Your task to perform on an android device: open wifi settings Image 0: 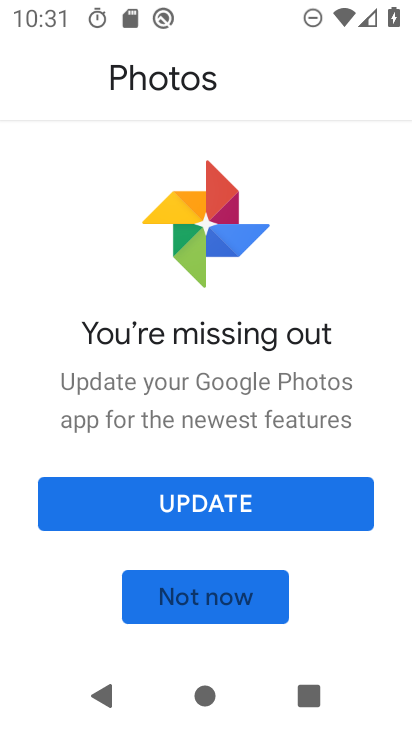
Step 0: press home button
Your task to perform on an android device: open wifi settings Image 1: 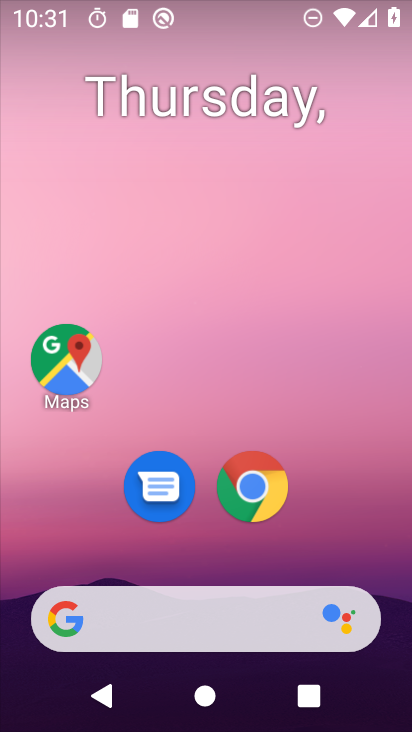
Step 1: drag from (116, 17) to (87, 550)
Your task to perform on an android device: open wifi settings Image 2: 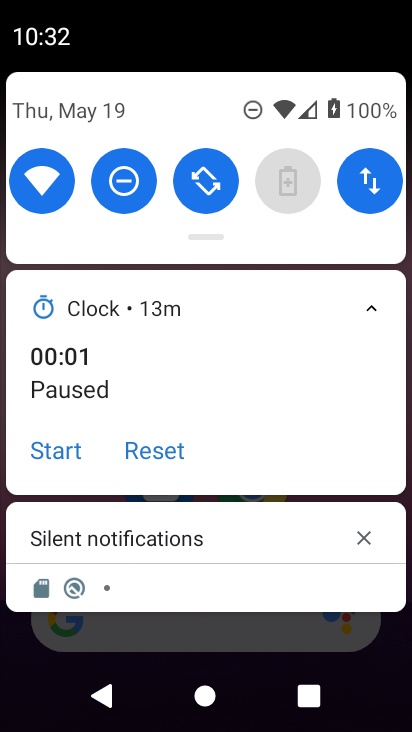
Step 2: click (40, 182)
Your task to perform on an android device: open wifi settings Image 3: 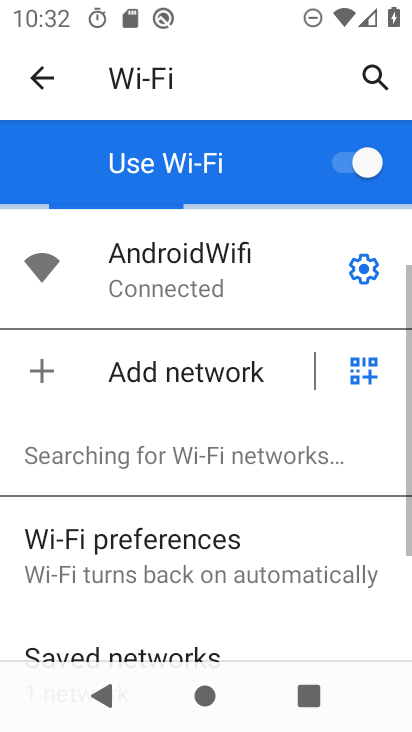
Step 3: task complete